Your task to perform on an android device: Show me productivity apps on the Play Store Image 0: 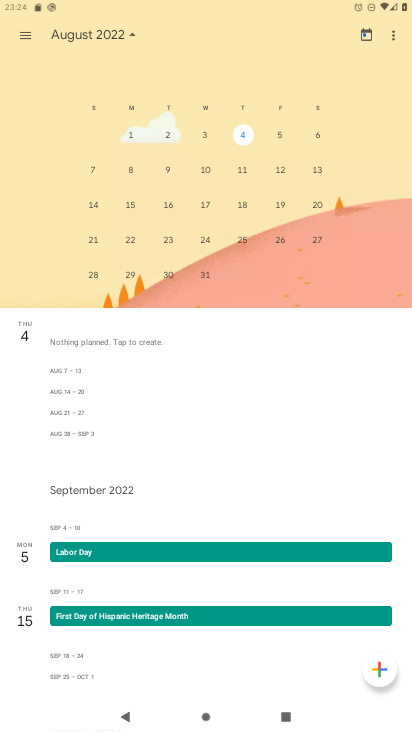
Step 0: press home button
Your task to perform on an android device: Show me productivity apps on the Play Store Image 1: 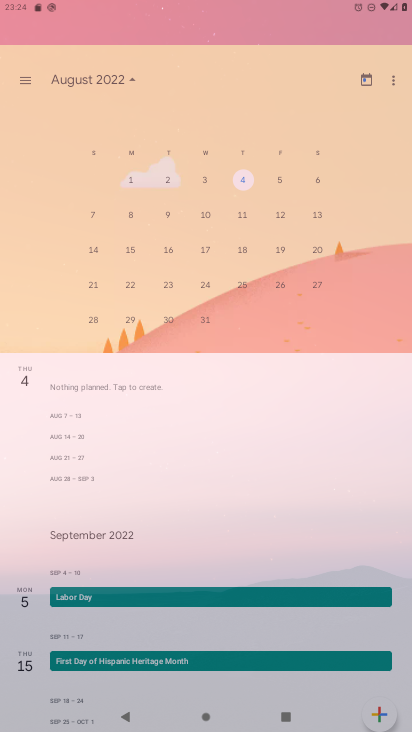
Step 1: drag from (209, 561) to (274, 206)
Your task to perform on an android device: Show me productivity apps on the Play Store Image 2: 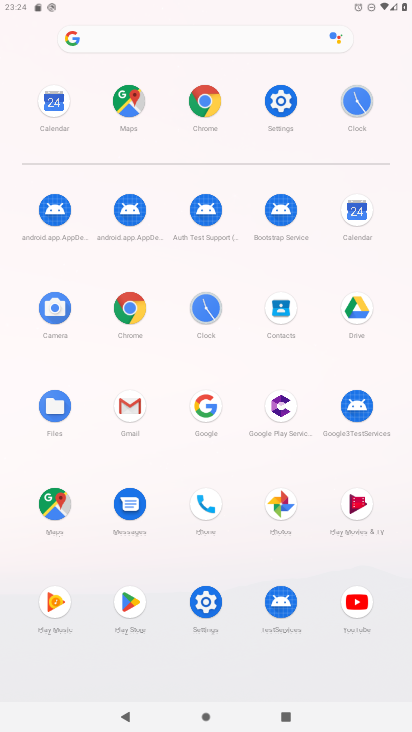
Step 2: click (133, 602)
Your task to perform on an android device: Show me productivity apps on the Play Store Image 3: 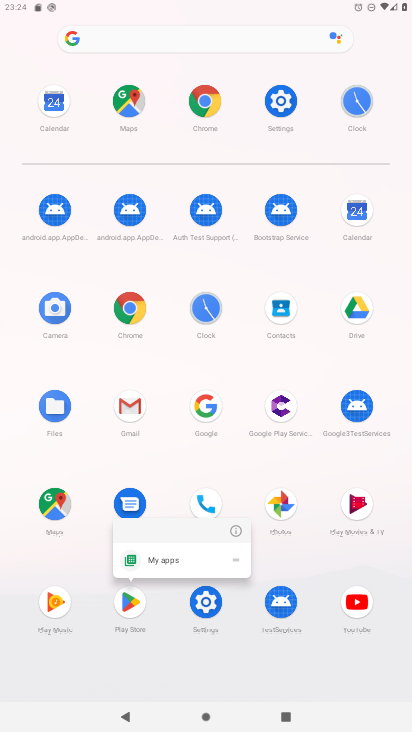
Step 3: click (237, 534)
Your task to perform on an android device: Show me productivity apps on the Play Store Image 4: 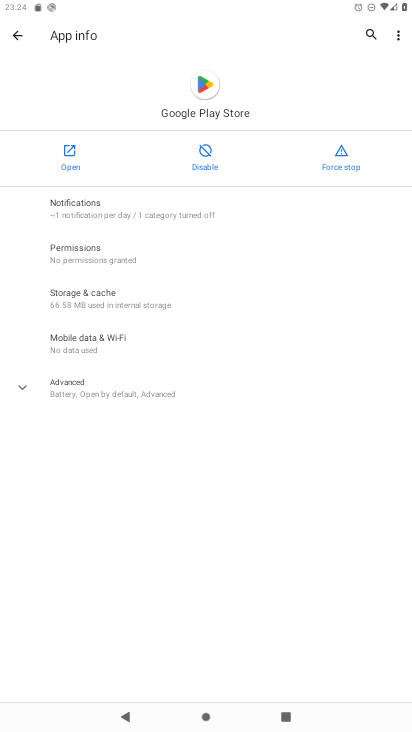
Step 4: click (69, 166)
Your task to perform on an android device: Show me productivity apps on the Play Store Image 5: 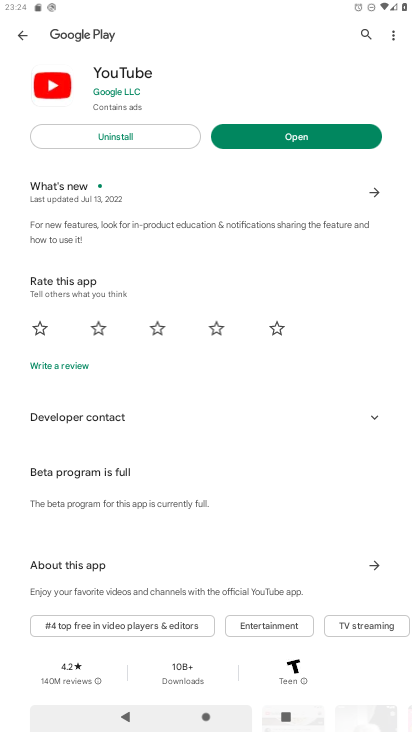
Step 5: drag from (213, 396) to (236, 725)
Your task to perform on an android device: Show me productivity apps on the Play Store Image 6: 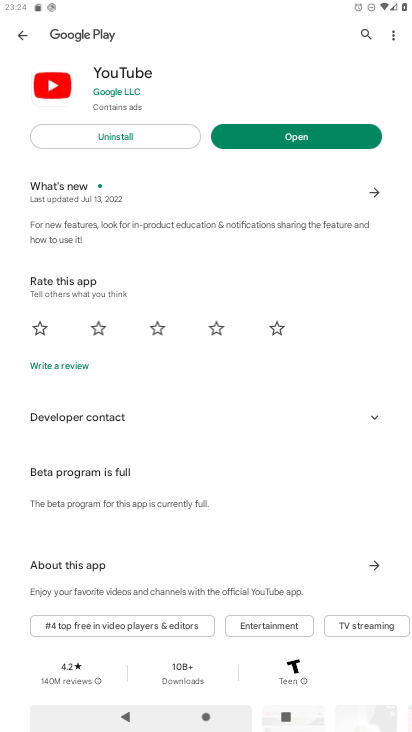
Step 6: click (18, 36)
Your task to perform on an android device: Show me productivity apps on the Play Store Image 7: 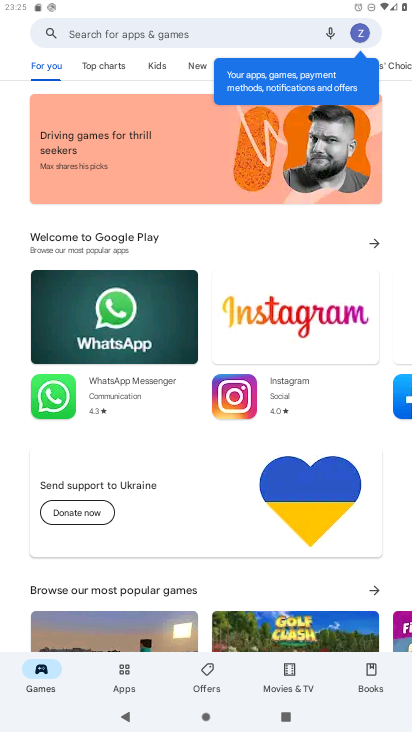
Step 7: task complete